Your task to perform on an android device: Open Chrome and go to settings Image 0: 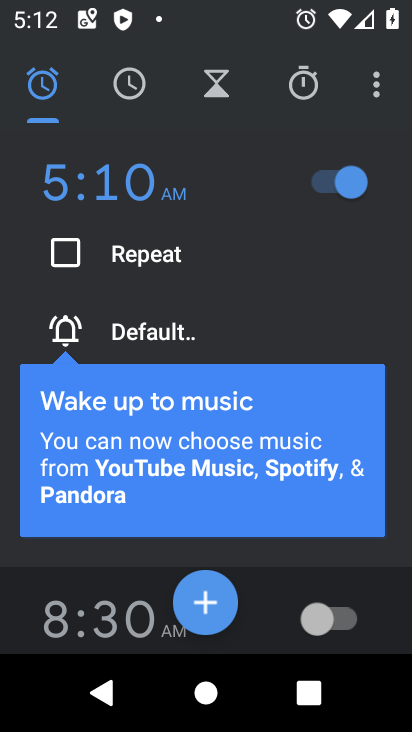
Step 0: press home button
Your task to perform on an android device: Open Chrome and go to settings Image 1: 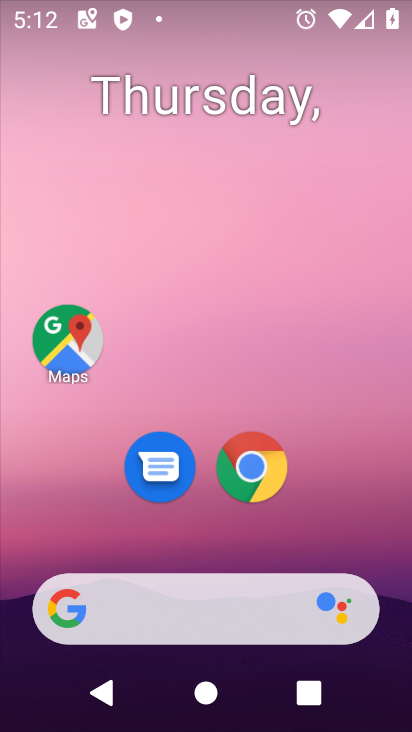
Step 1: click (266, 468)
Your task to perform on an android device: Open Chrome and go to settings Image 2: 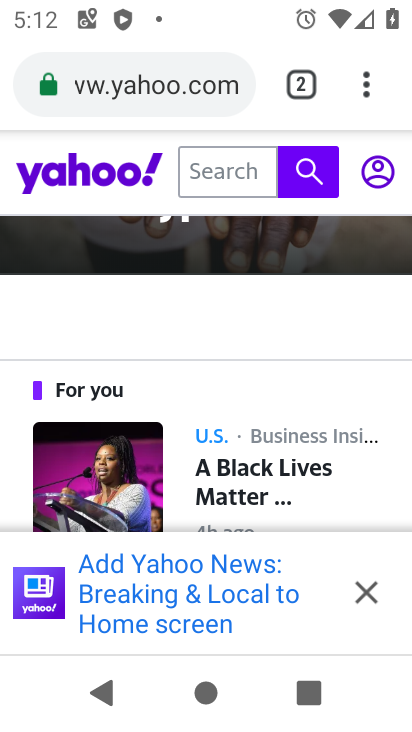
Step 2: click (374, 112)
Your task to perform on an android device: Open Chrome and go to settings Image 3: 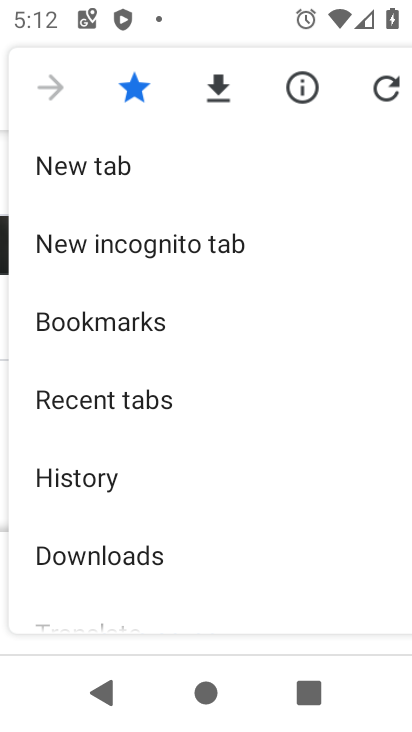
Step 3: drag from (300, 629) to (262, 201)
Your task to perform on an android device: Open Chrome and go to settings Image 4: 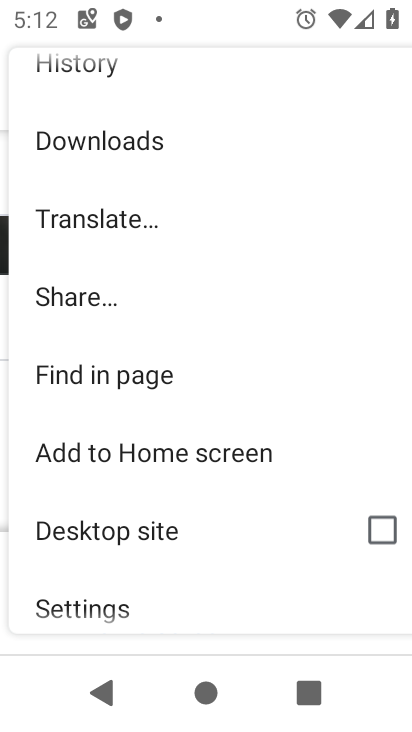
Step 4: click (237, 620)
Your task to perform on an android device: Open Chrome and go to settings Image 5: 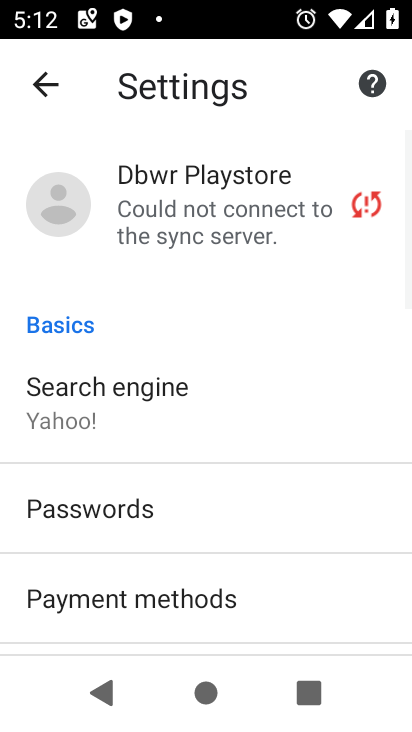
Step 5: task complete